Your task to perform on an android device: Open the map Image 0: 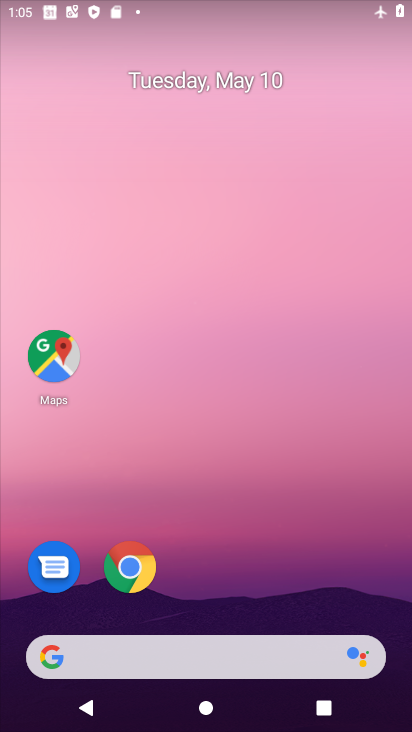
Step 0: drag from (388, 633) to (346, 124)
Your task to perform on an android device: Open the map Image 1: 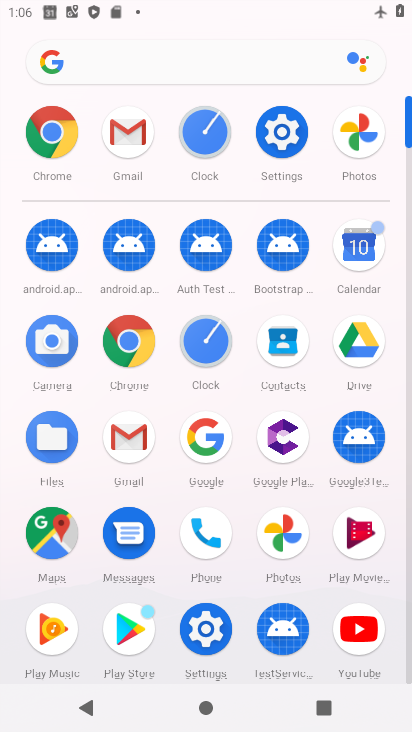
Step 1: click (58, 534)
Your task to perform on an android device: Open the map Image 2: 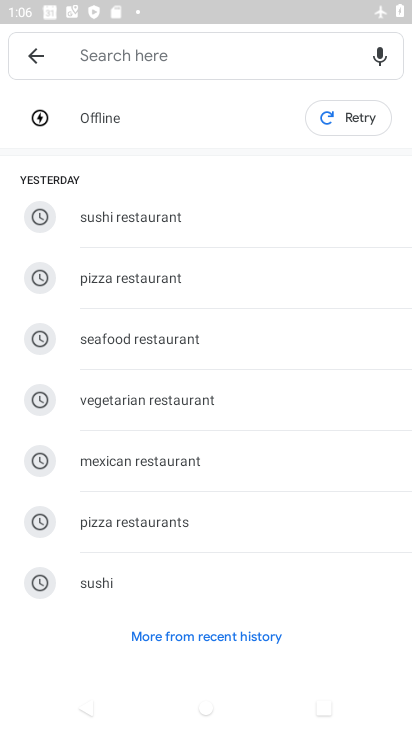
Step 2: task complete